Your task to perform on an android device: turn notification dots on Image 0: 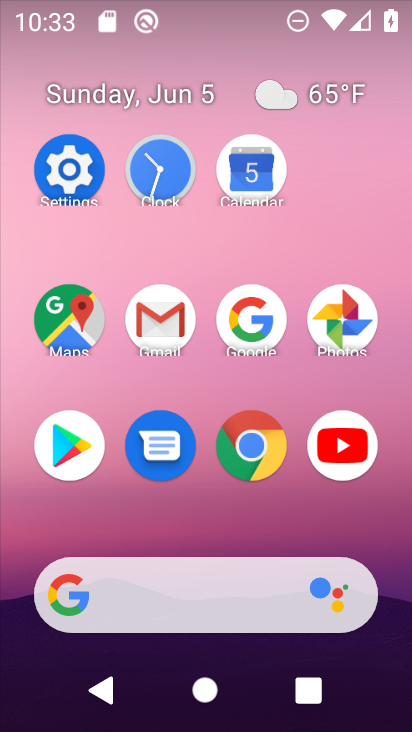
Step 0: click (78, 154)
Your task to perform on an android device: turn notification dots on Image 1: 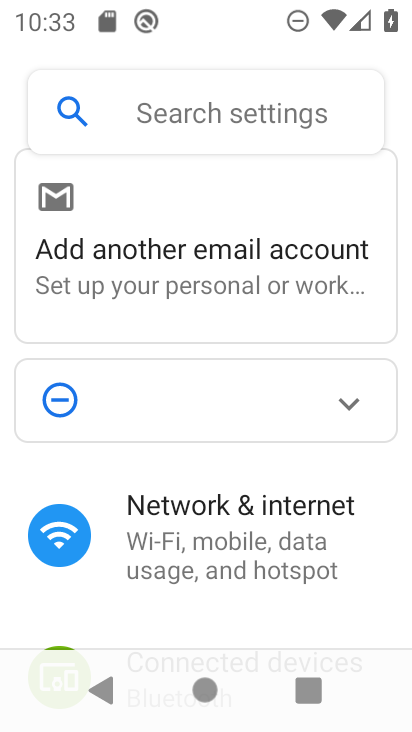
Step 1: drag from (334, 580) to (313, 176)
Your task to perform on an android device: turn notification dots on Image 2: 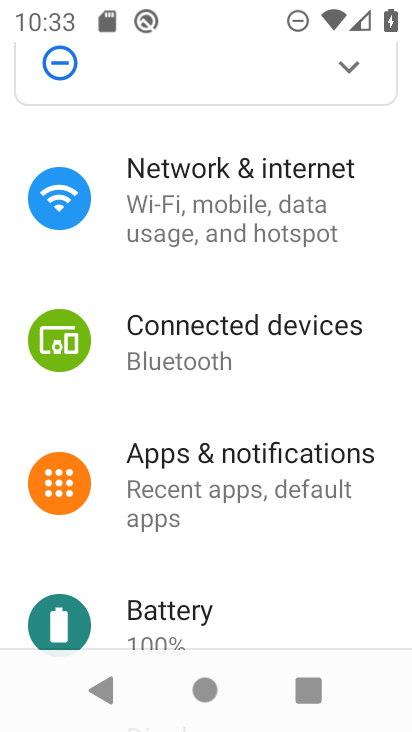
Step 2: click (269, 481)
Your task to perform on an android device: turn notification dots on Image 3: 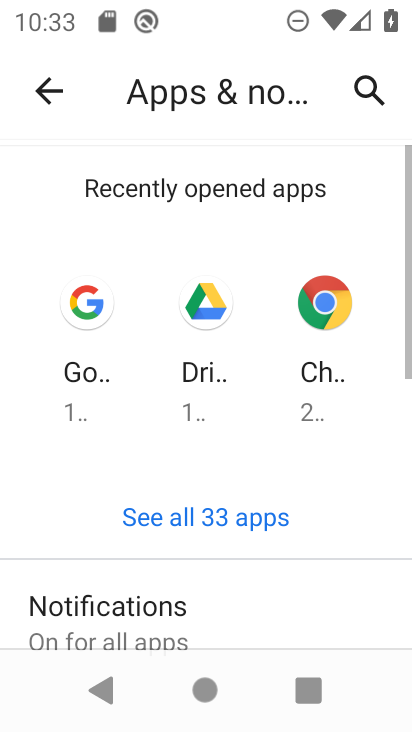
Step 3: click (137, 594)
Your task to perform on an android device: turn notification dots on Image 4: 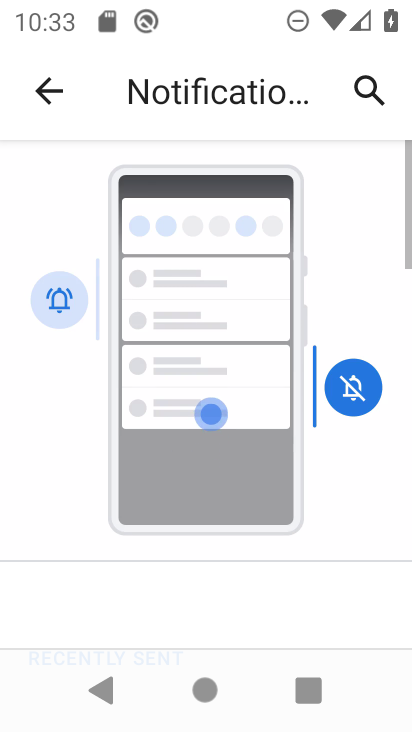
Step 4: drag from (224, 593) to (203, 189)
Your task to perform on an android device: turn notification dots on Image 5: 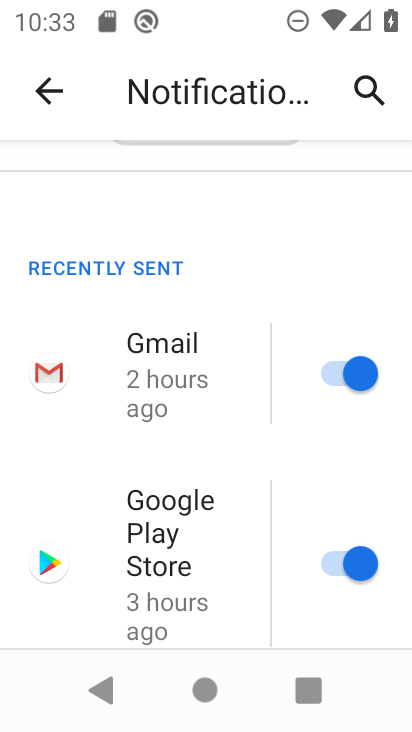
Step 5: drag from (232, 626) to (208, 285)
Your task to perform on an android device: turn notification dots on Image 6: 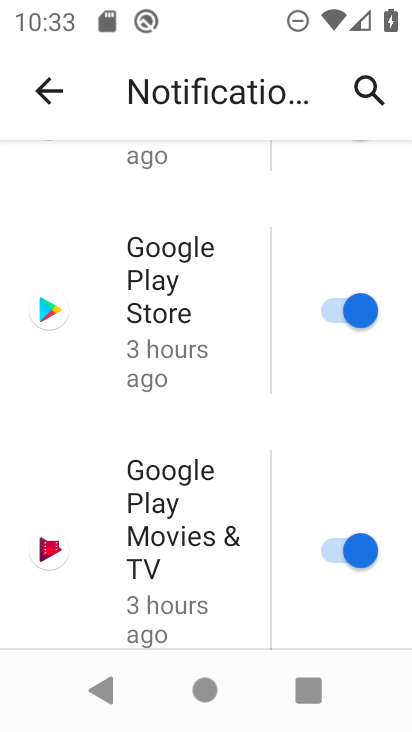
Step 6: drag from (214, 681) to (214, 296)
Your task to perform on an android device: turn notification dots on Image 7: 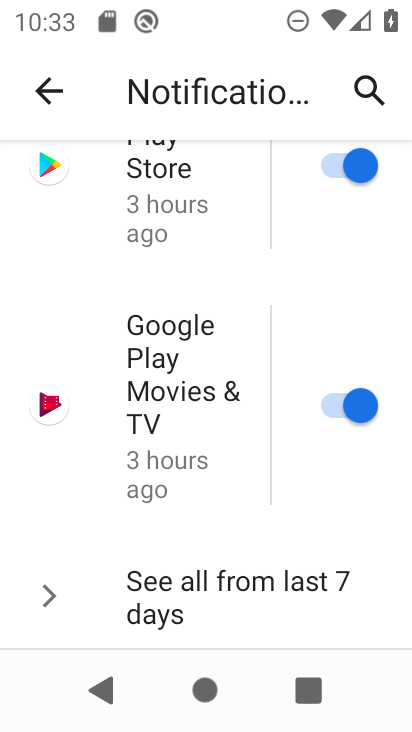
Step 7: drag from (249, 616) to (241, 342)
Your task to perform on an android device: turn notification dots on Image 8: 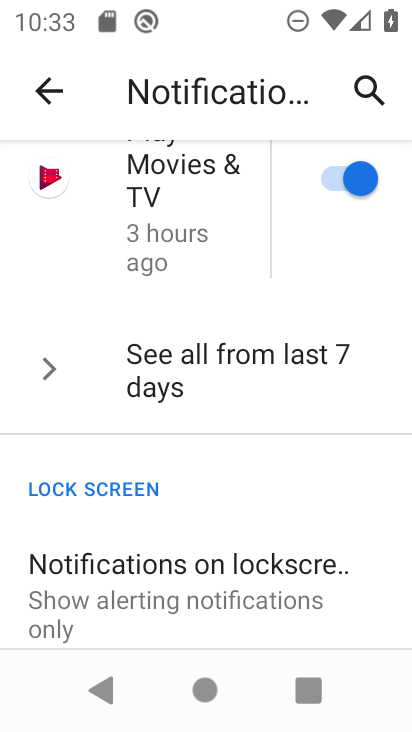
Step 8: drag from (233, 584) to (216, 308)
Your task to perform on an android device: turn notification dots on Image 9: 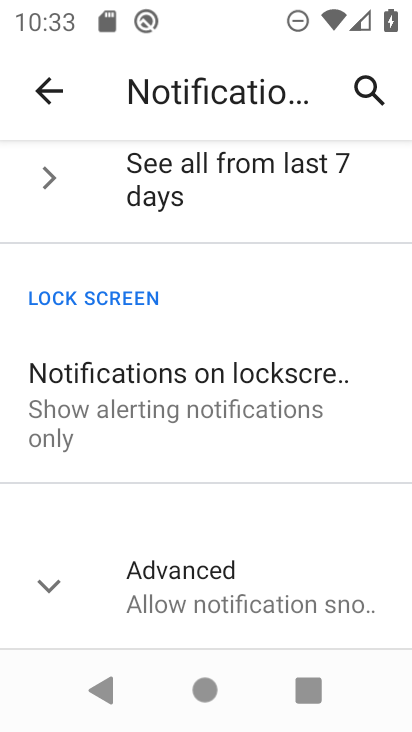
Step 9: click (239, 599)
Your task to perform on an android device: turn notification dots on Image 10: 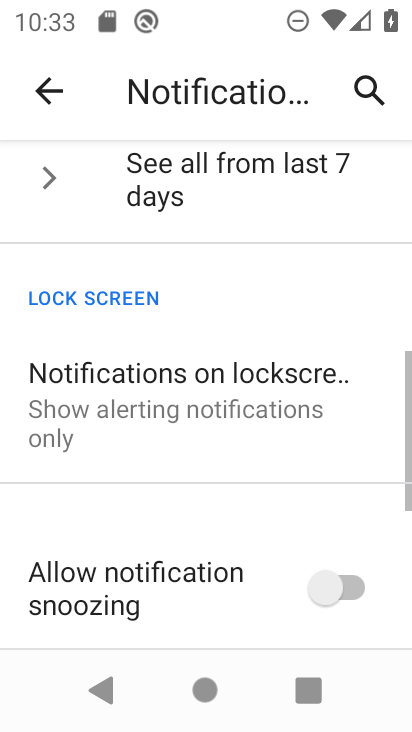
Step 10: drag from (217, 572) to (193, 286)
Your task to perform on an android device: turn notification dots on Image 11: 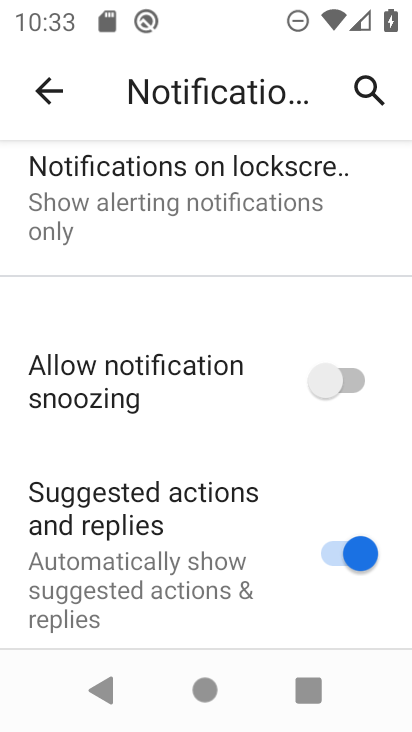
Step 11: drag from (273, 565) to (270, 241)
Your task to perform on an android device: turn notification dots on Image 12: 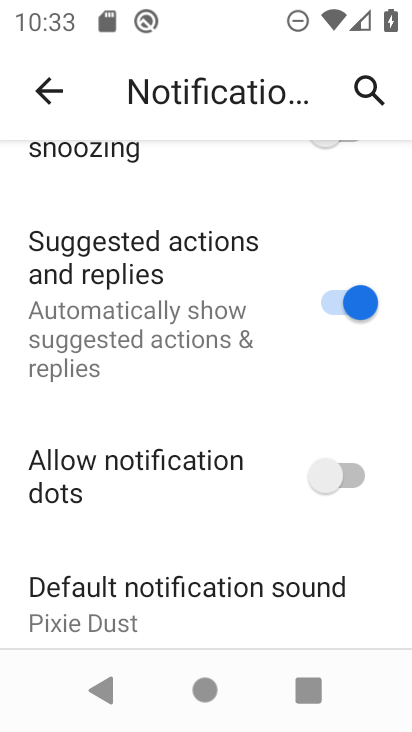
Step 12: click (327, 465)
Your task to perform on an android device: turn notification dots on Image 13: 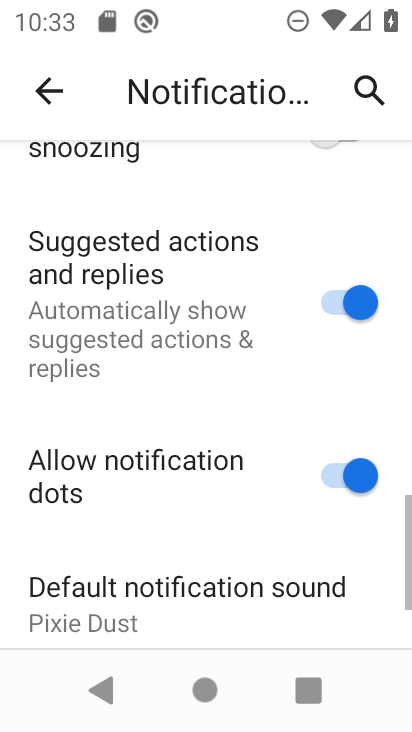
Step 13: task complete